Your task to perform on an android device: Turn off the flashlight Image 0: 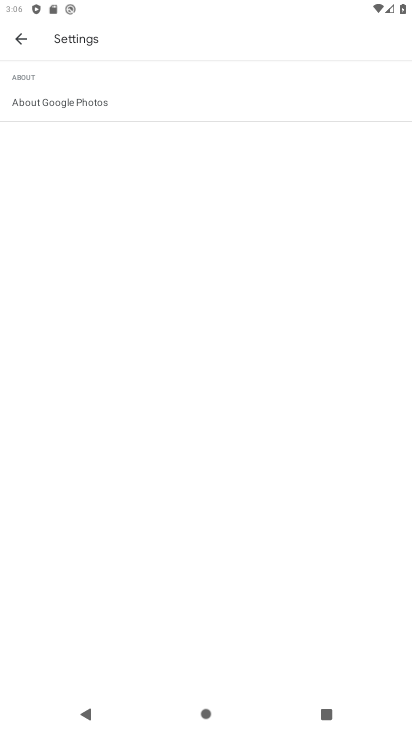
Step 0: press home button
Your task to perform on an android device: Turn off the flashlight Image 1: 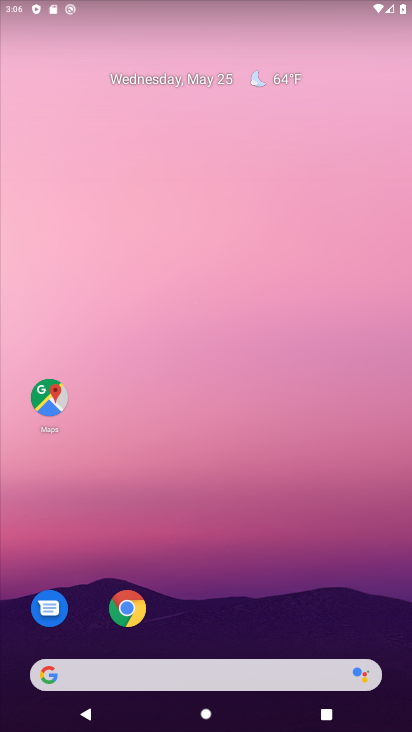
Step 1: drag from (262, 556) to (250, 90)
Your task to perform on an android device: Turn off the flashlight Image 2: 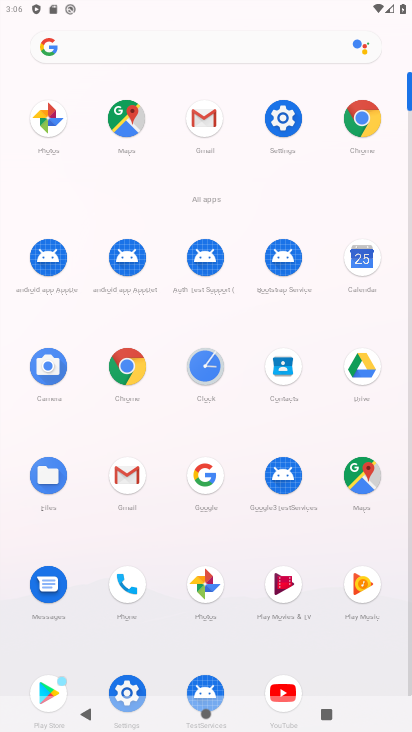
Step 2: click (279, 116)
Your task to perform on an android device: Turn off the flashlight Image 3: 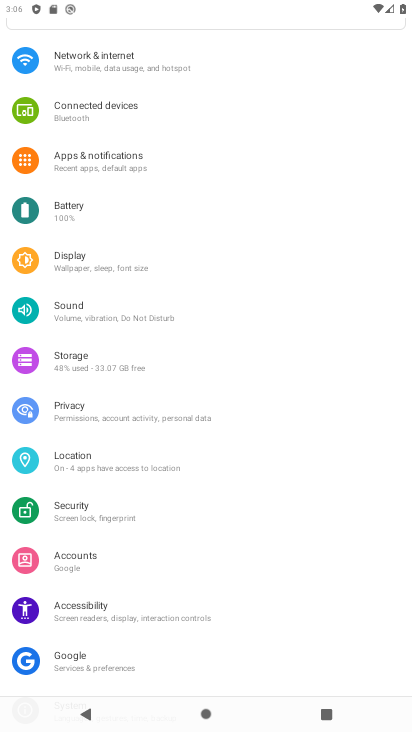
Step 3: drag from (166, 128) to (94, 556)
Your task to perform on an android device: Turn off the flashlight Image 4: 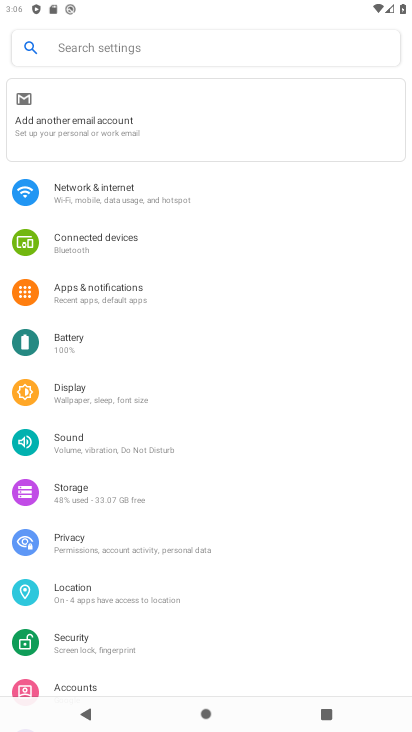
Step 4: click (103, 402)
Your task to perform on an android device: Turn off the flashlight Image 5: 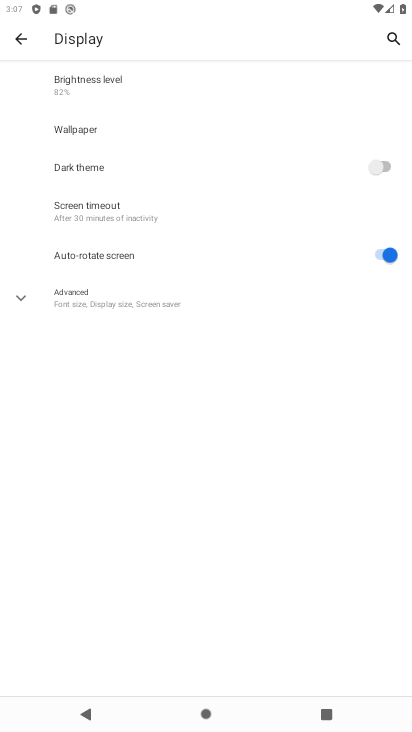
Step 5: task complete